Your task to perform on an android device: turn off location Image 0: 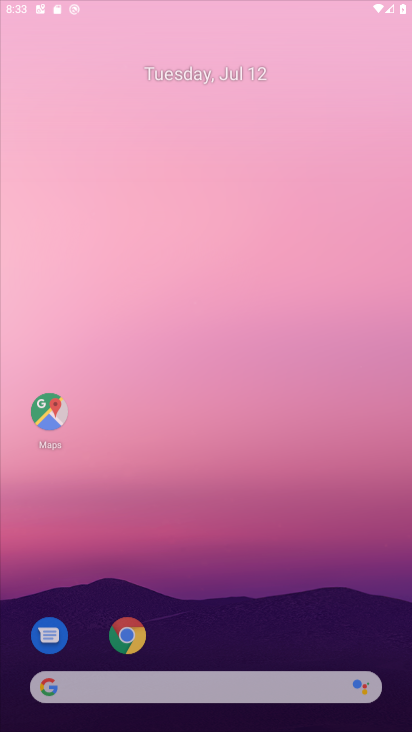
Step 0: drag from (258, 592) to (193, 151)
Your task to perform on an android device: turn off location Image 1: 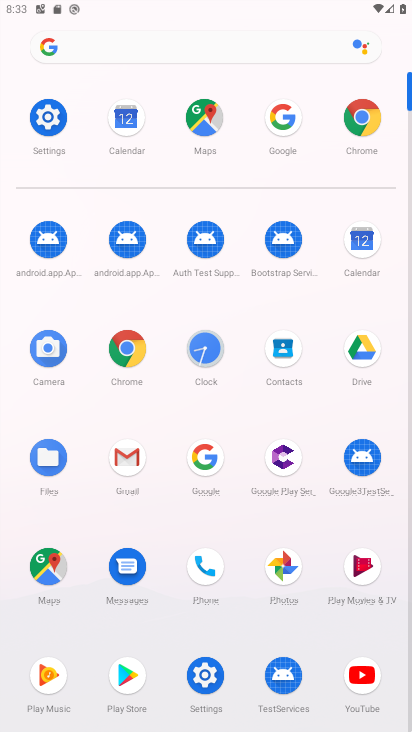
Step 1: click (45, 113)
Your task to perform on an android device: turn off location Image 2: 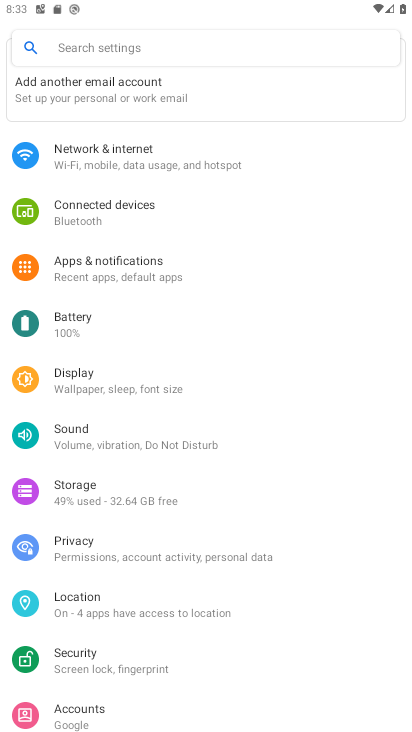
Step 2: click (119, 601)
Your task to perform on an android device: turn off location Image 3: 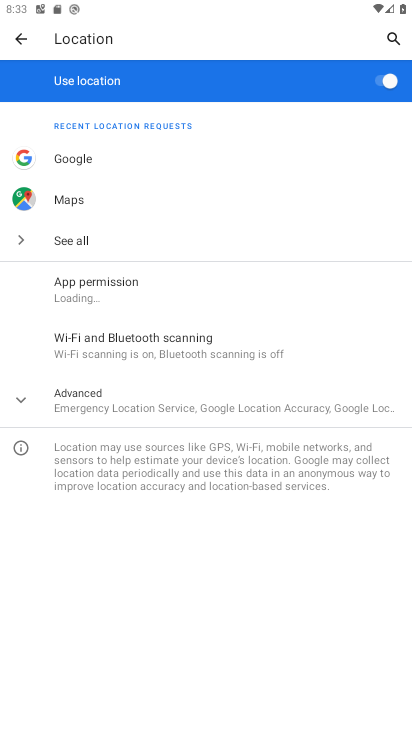
Step 3: click (379, 78)
Your task to perform on an android device: turn off location Image 4: 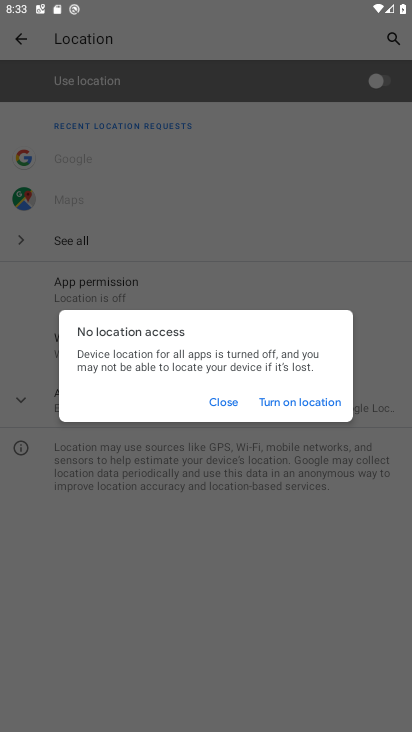
Step 4: task complete